Your task to perform on an android device: Turn off the flashlight Image 0: 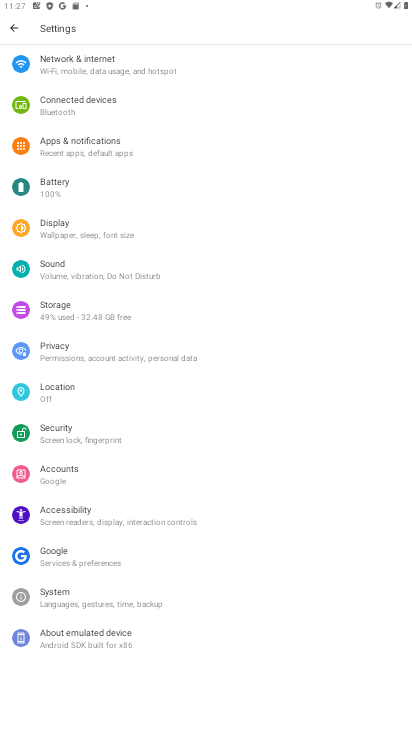
Step 0: click (87, 233)
Your task to perform on an android device: Turn off the flashlight Image 1: 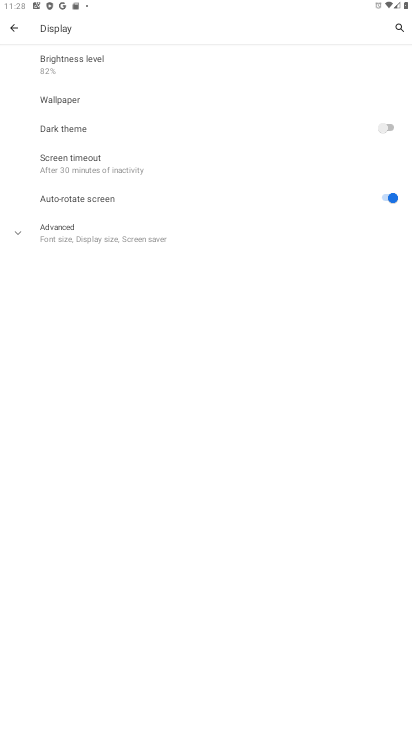
Step 1: task complete